Your task to perform on an android device: change text size in settings app Image 0: 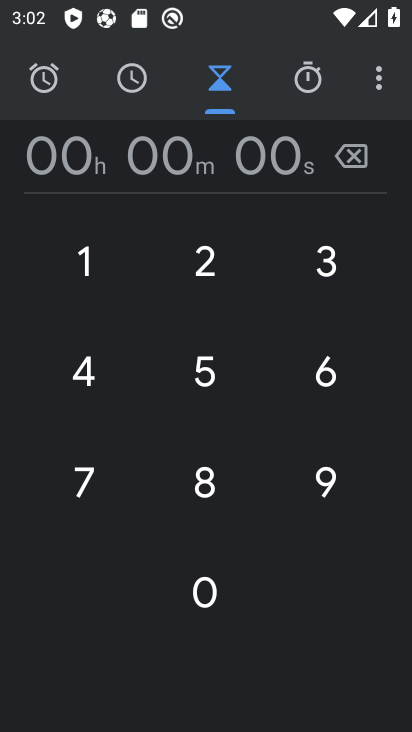
Step 0: press home button
Your task to perform on an android device: change text size in settings app Image 1: 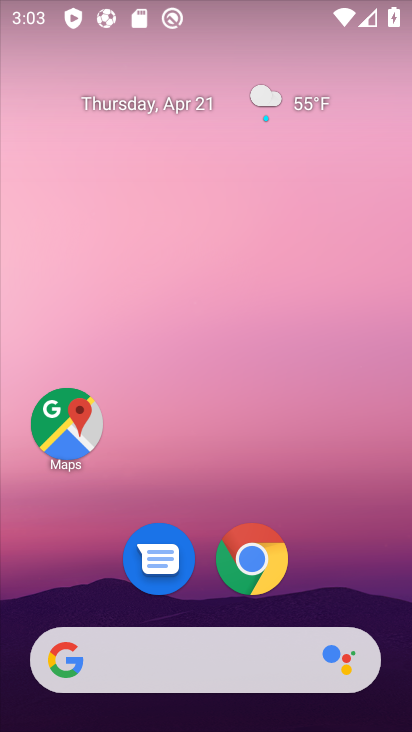
Step 1: drag from (340, 599) to (296, 85)
Your task to perform on an android device: change text size in settings app Image 2: 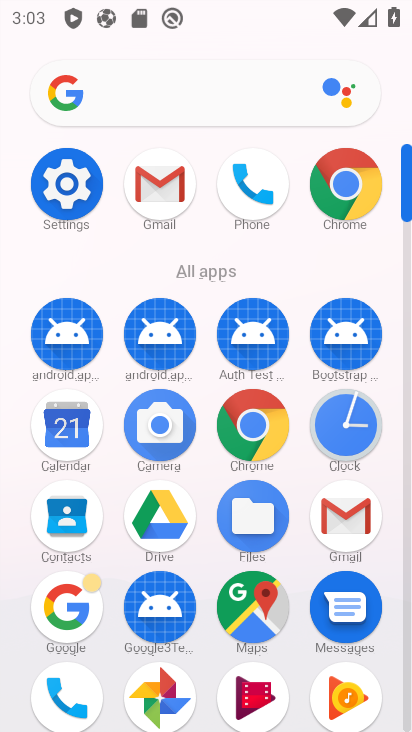
Step 2: drag from (208, 259) to (197, 82)
Your task to perform on an android device: change text size in settings app Image 3: 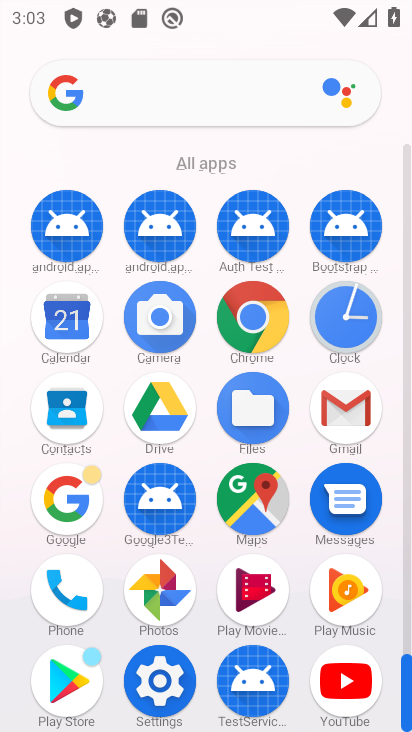
Step 3: click (167, 683)
Your task to perform on an android device: change text size in settings app Image 4: 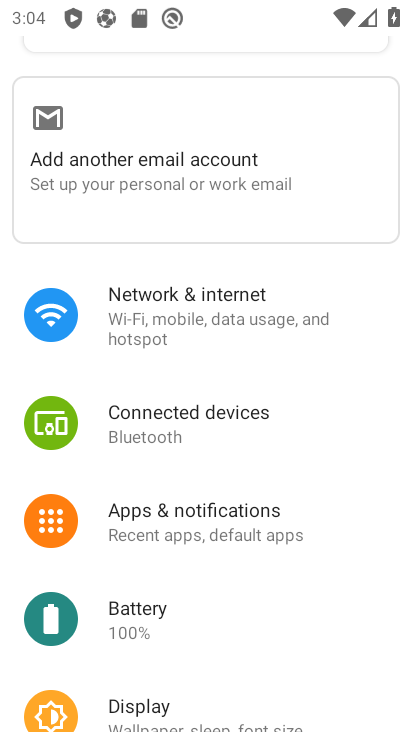
Step 4: click (128, 712)
Your task to perform on an android device: change text size in settings app Image 5: 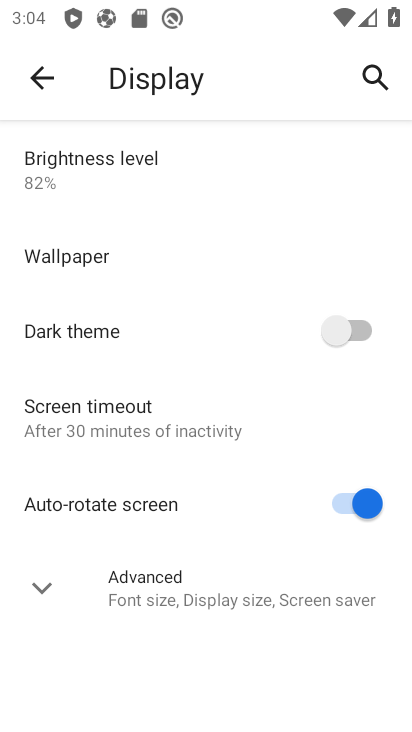
Step 5: click (157, 611)
Your task to perform on an android device: change text size in settings app Image 6: 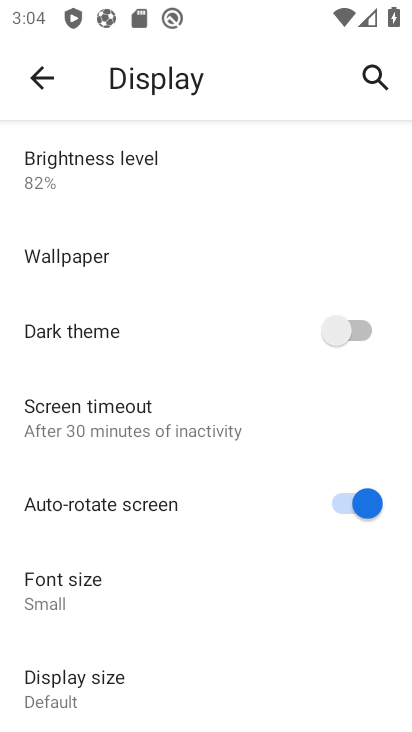
Step 6: click (142, 584)
Your task to perform on an android device: change text size in settings app Image 7: 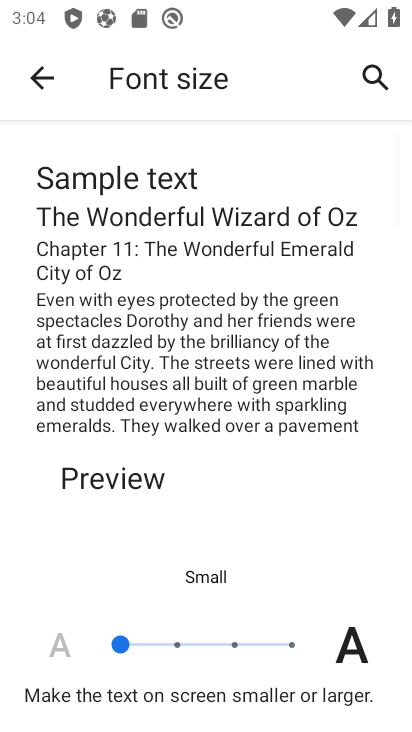
Step 7: task complete